Your task to perform on an android device: visit the assistant section in the google photos Image 0: 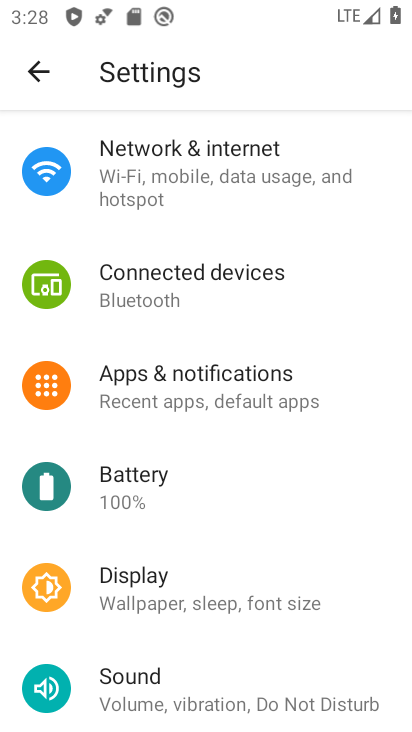
Step 0: press home button
Your task to perform on an android device: visit the assistant section in the google photos Image 1: 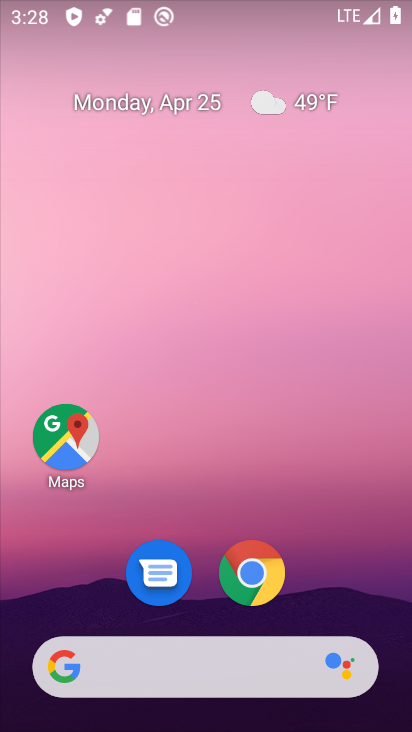
Step 1: drag from (341, 531) to (277, 57)
Your task to perform on an android device: visit the assistant section in the google photos Image 2: 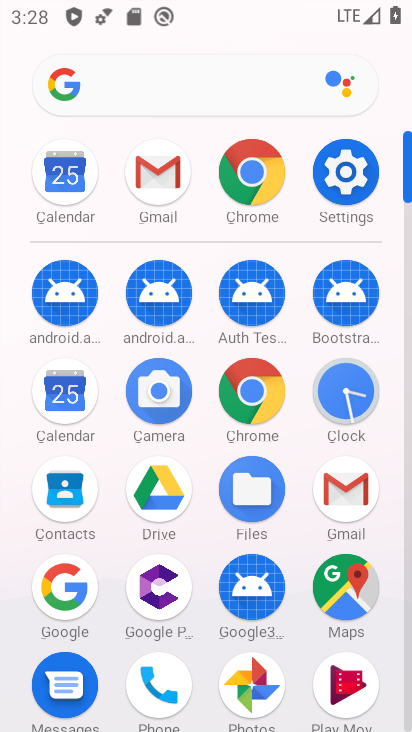
Step 2: click (255, 696)
Your task to perform on an android device: visit the assistant section in the google photos Image 3: 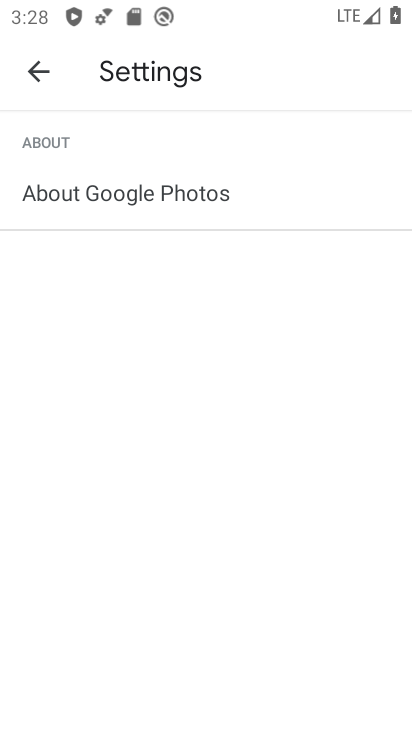
Step 3: click (41, 87)
Your task to perform on an android device: visit the assistant section in the google photos Image 4: 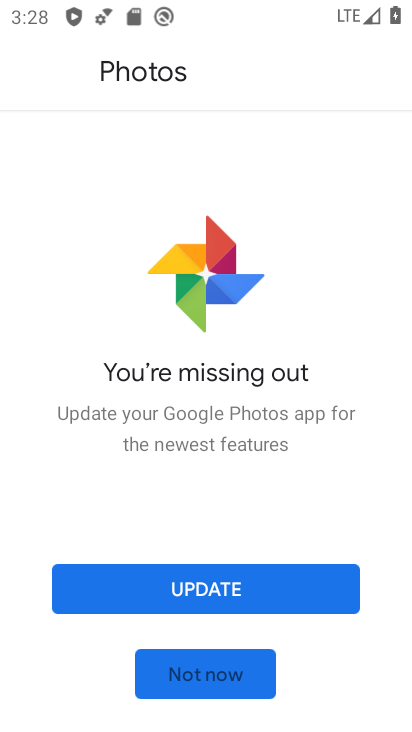
Step 4: click (228, 687)
Your task to perform on an android device: visit the assistant section in the google photos Image 5: 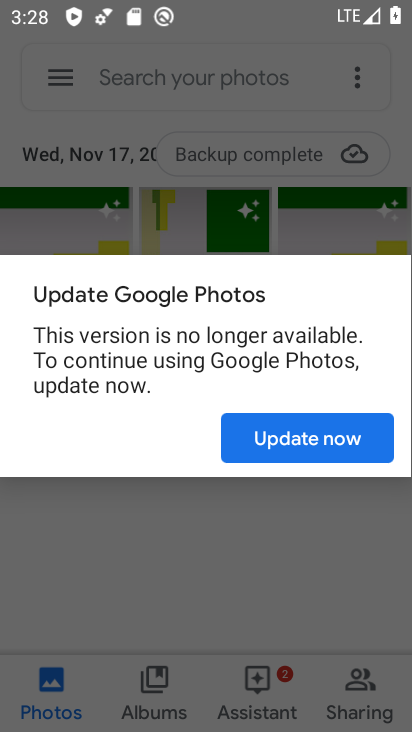
Step 5: click (265, 416)
Your task to perform on an android device: visit the assistant section in the google photos Image 6: 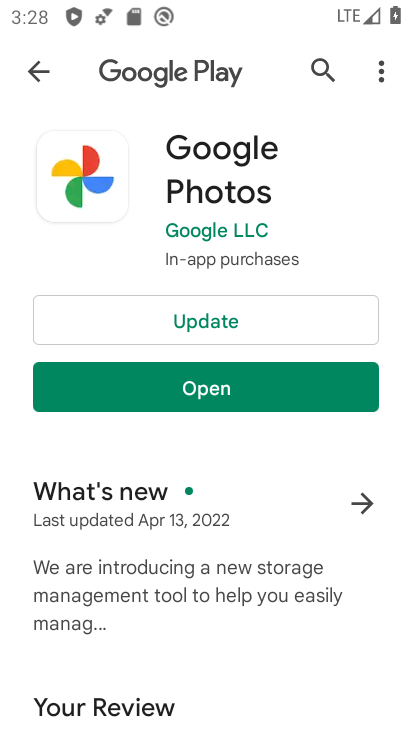
Step 6: click (213, 401)
Your task to perform on an android device: visit the assistant section in the google photos Image 7: 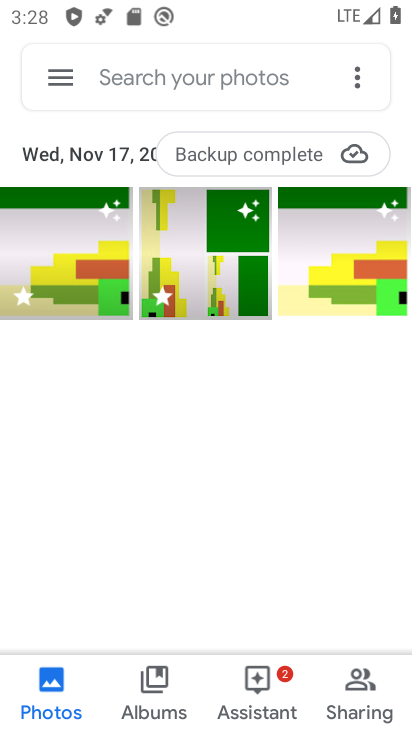
Step 7: click (269, 691)
Your task to perform on an android device: visit the assistant section in the google photos Image 8: 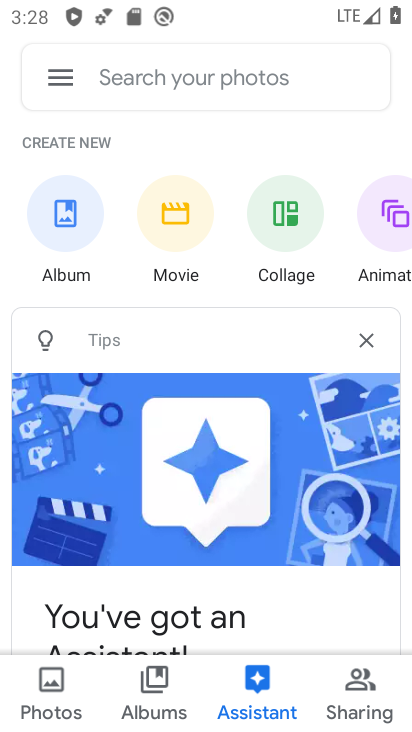
Step 8: task complete